Your task to perform on an android device: empty trash in the gmail app Image 0: 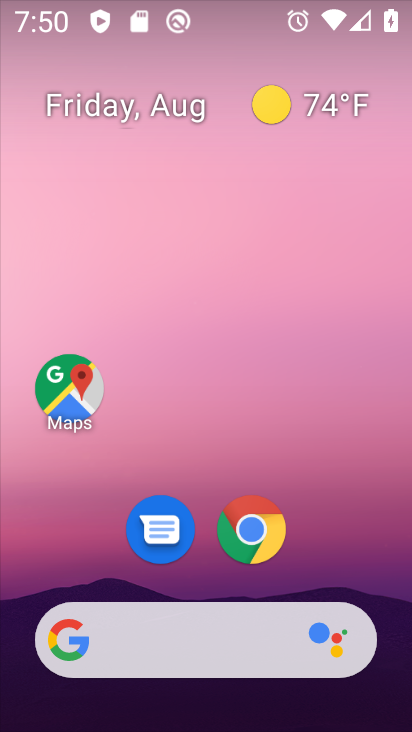
Step 0: drag from (195, 644) to (191, 81)
Your task to perform on an android device: empty trash in the gmail app Image 1: 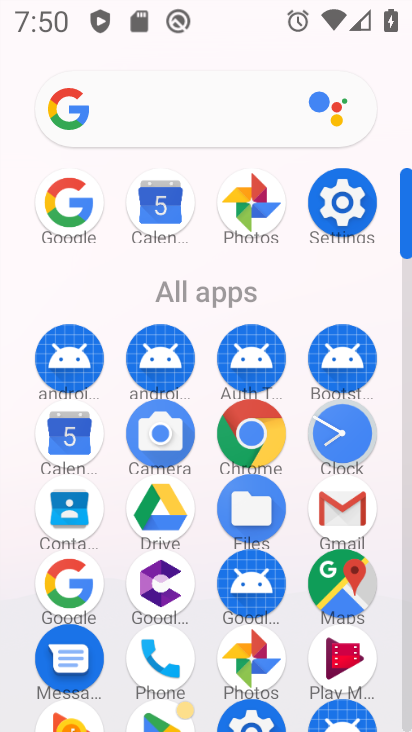
Step 1: click (345, 503)
Your task to perform on an android device: empty trash in the gmail app Image 2: 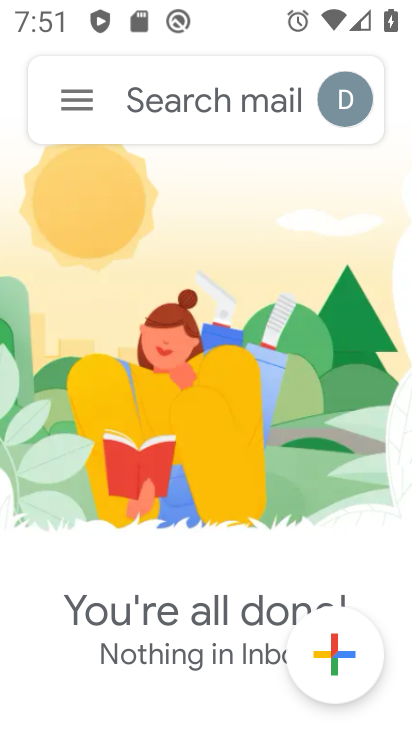
Step 2: click (79, 103)
Your task to perform on an android device: empty trash in the gmail app Image 3: 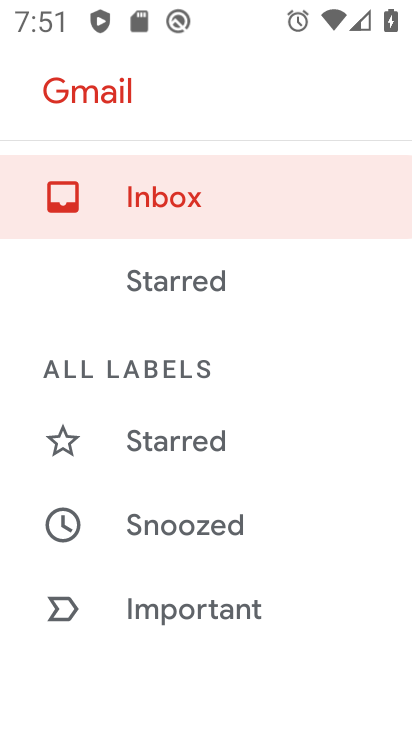
Step 3: drag from (168, 483) to (239, 246)
Your task to perform on an android device: empty trash in the gmail app Image 4: 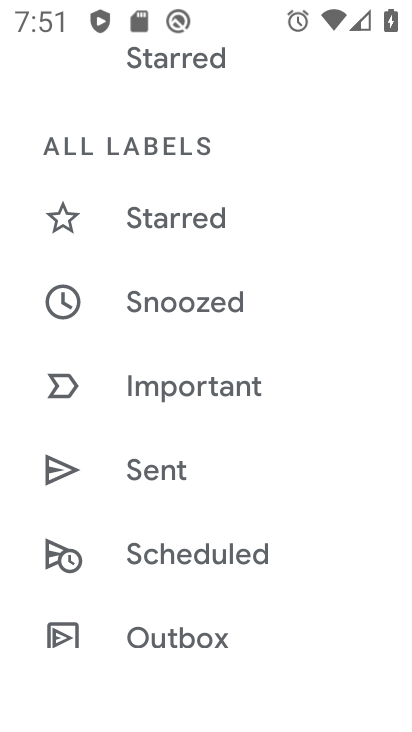
Step 4: drag from (154, 428) to (256, 277)
Your task to perform on an android device: empty trash in the gmail app Image 5: 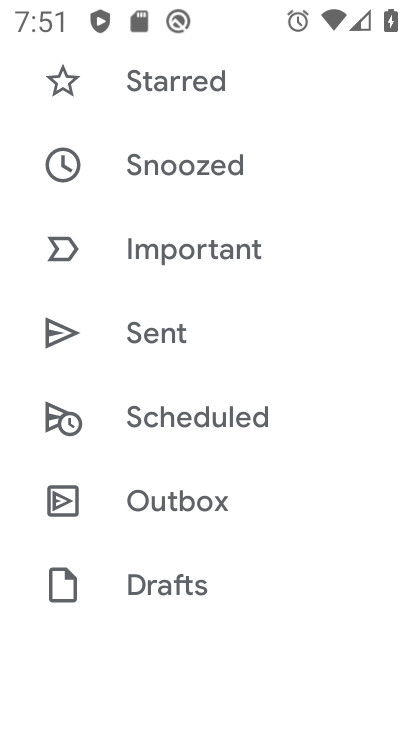
Step 5: drag from (162, 460) to (254, 334)
Your task to perform on an android device: empty trash in the gmail app Image 6: 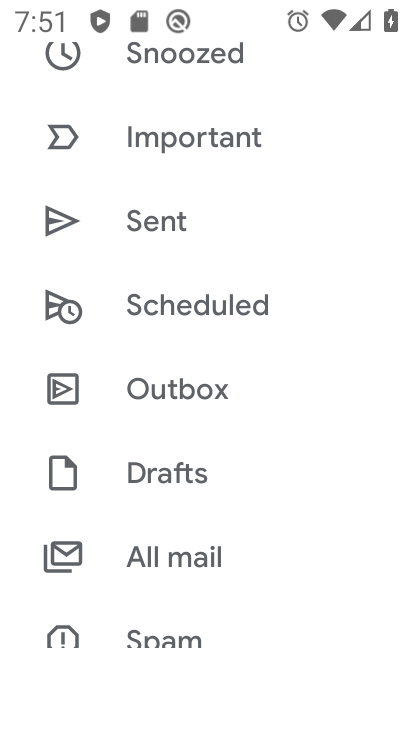
Step 6: drag from (163, 449) to (247, 332)
Your task to perform on an android device: empty trash in the gmail app Image 7: 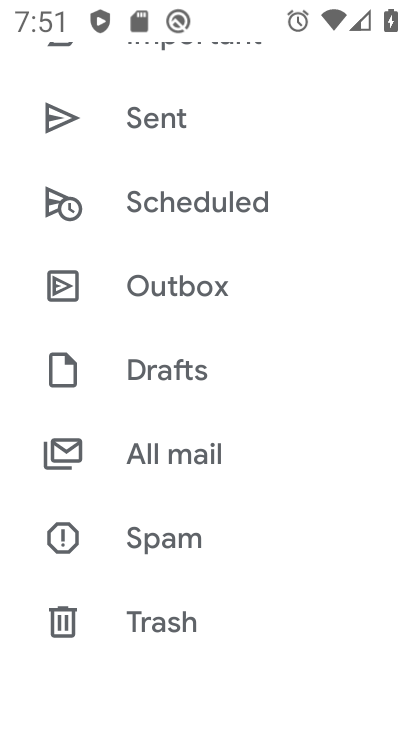
Step 7: drag from (162, 497) to (249, 392)
Your task to perform on an android device: empty trash in the gmail app Image 8: 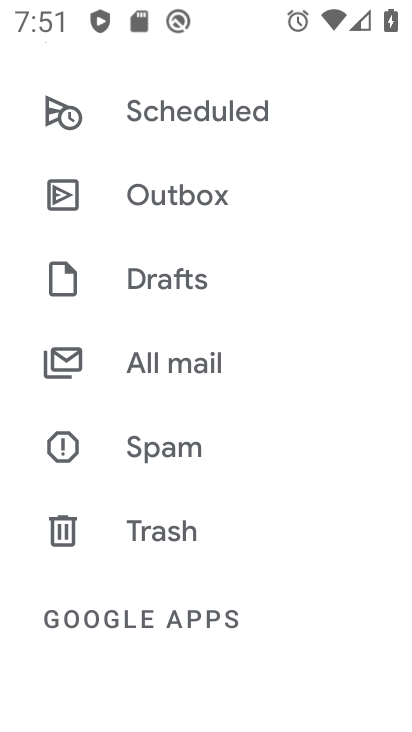
Step 8: click (159, 526)
Your task to perform on an android device: empty trash in the gmail app Image 9: 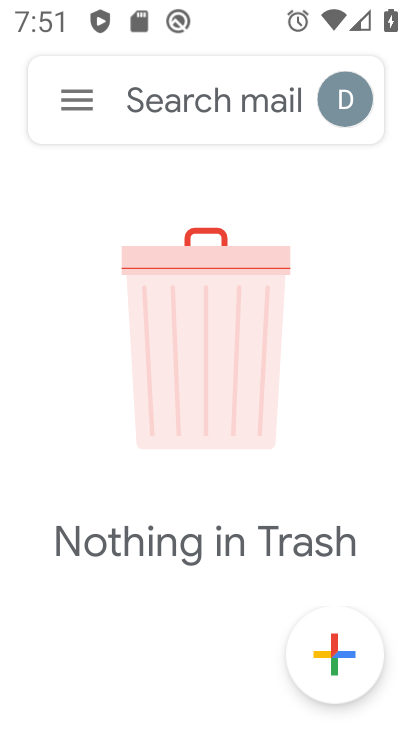
Step 9: task complete